Your task to perform on an android device: search for starred emails in the gmail app Image 0: 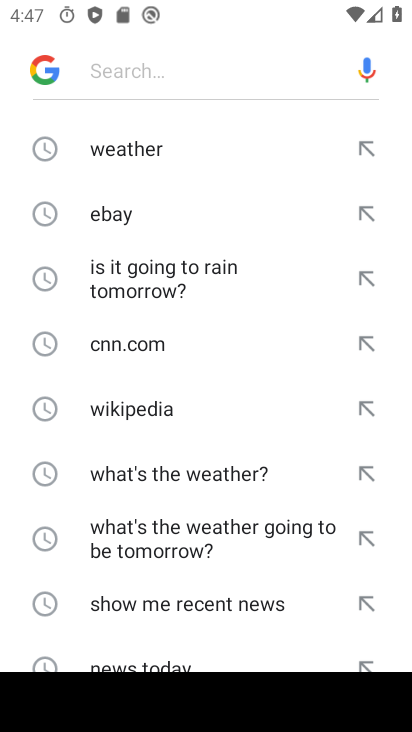
Step 0: press home button
Your task to perform on an android device: search for starred emails in the gmail app Image 1: 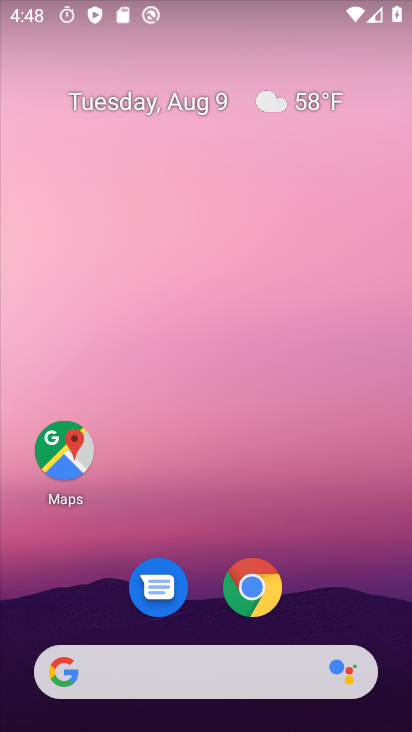
Step 1: drag from (241, 653) to (243, 29)
Your task to perform on an android device: search for starred emails in the gmail app Image 2: 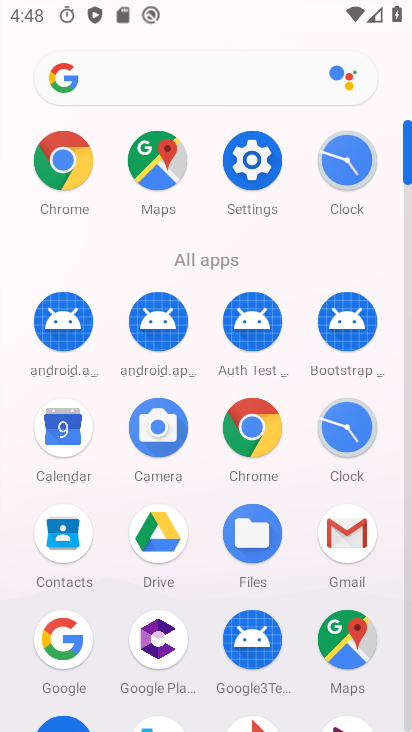
Step 2: click (345, 528)
Your task to perform on an android device: search for starred emails in the gmail app Image 3: 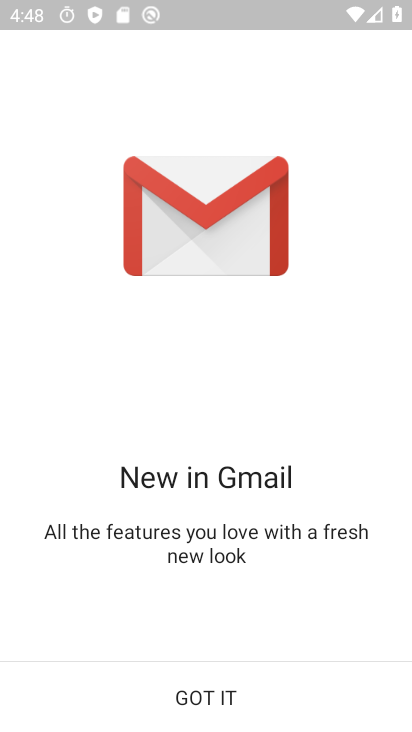
Step 3: click (234, 687)
Your task to perform on an android device: search for starred emails in the gmail app Image 4: 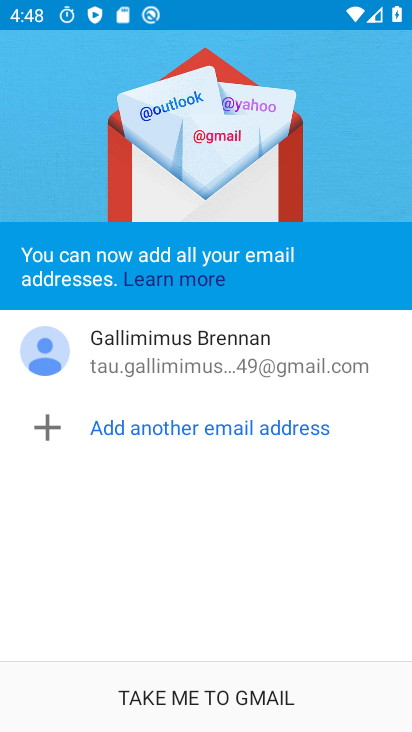
Step 4: click (234, 687)
Your task to perform on an android device: search for starred emails in the gmail app Image 5: 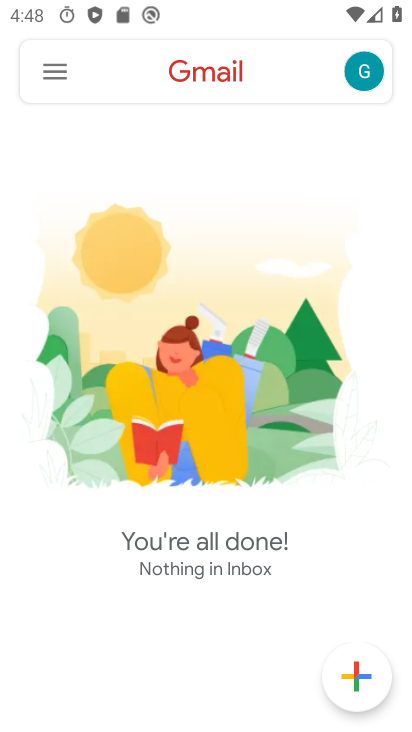
Step 5: click (44, 71)
Your task to perform on an android device: search for starred emails in the gmail app Image 6: 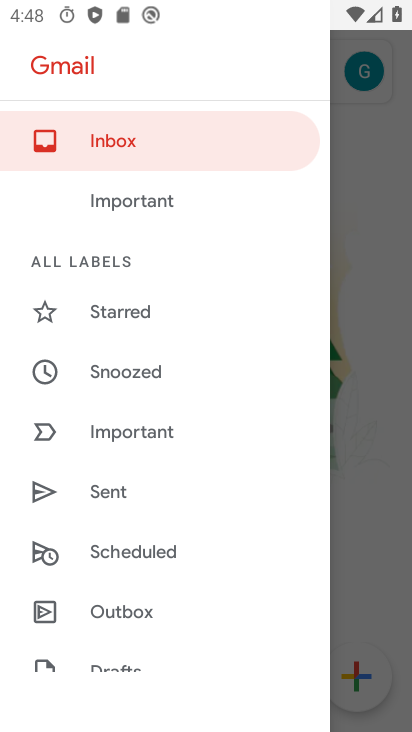
Step 6: click (133, 311)
Your task to perform on an android device: search for starred emails in the gmail app Image 7: 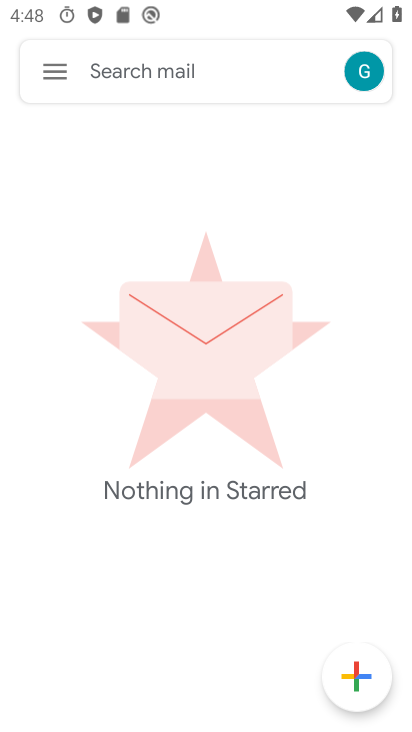
Step 7: task complete